Your task to perform on an android device: View the shopping cart on target. Add "razer blade" to the cart on target, then select checkout. Image 0: 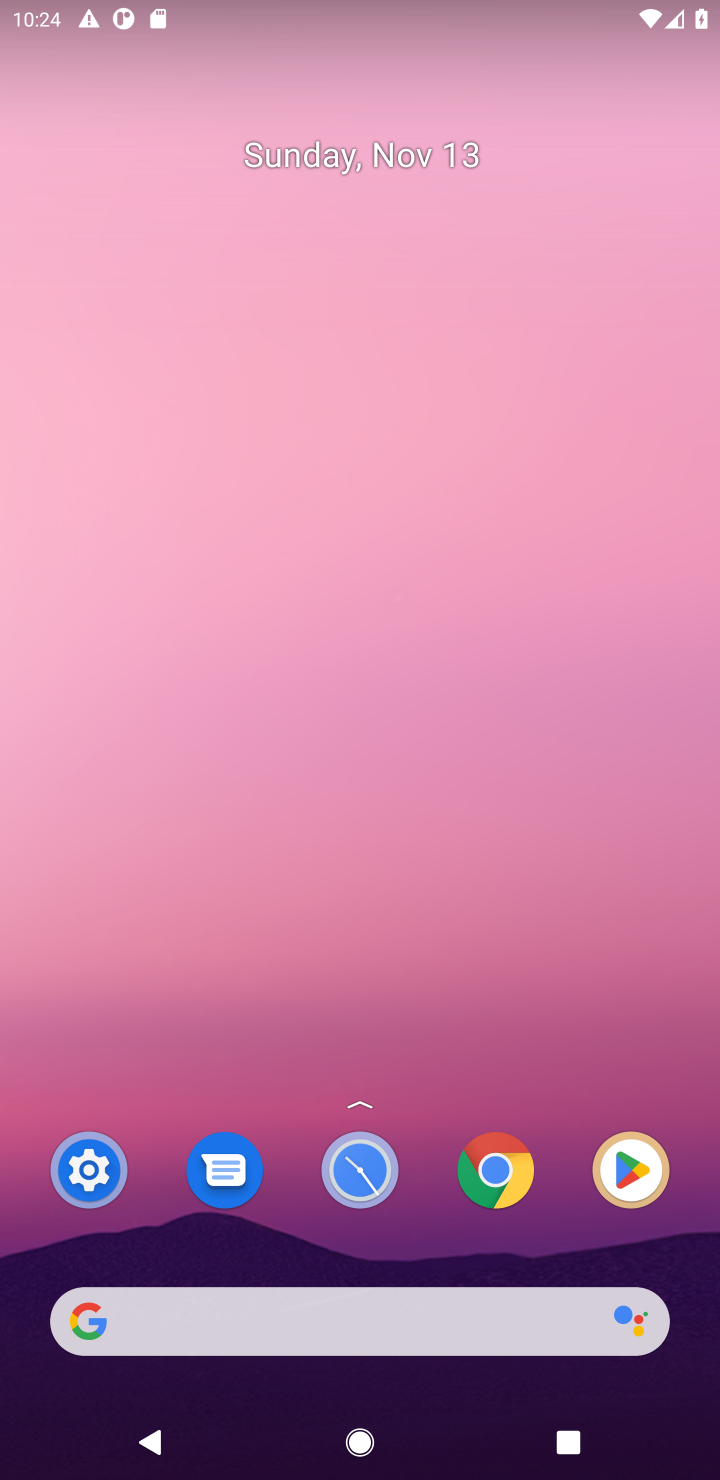
Step 0: click (410, 1336)
Your task to perform on an android device: View the shopping cart on target. Add "razer blade" to the cart on target, then select checkout. Image 1: 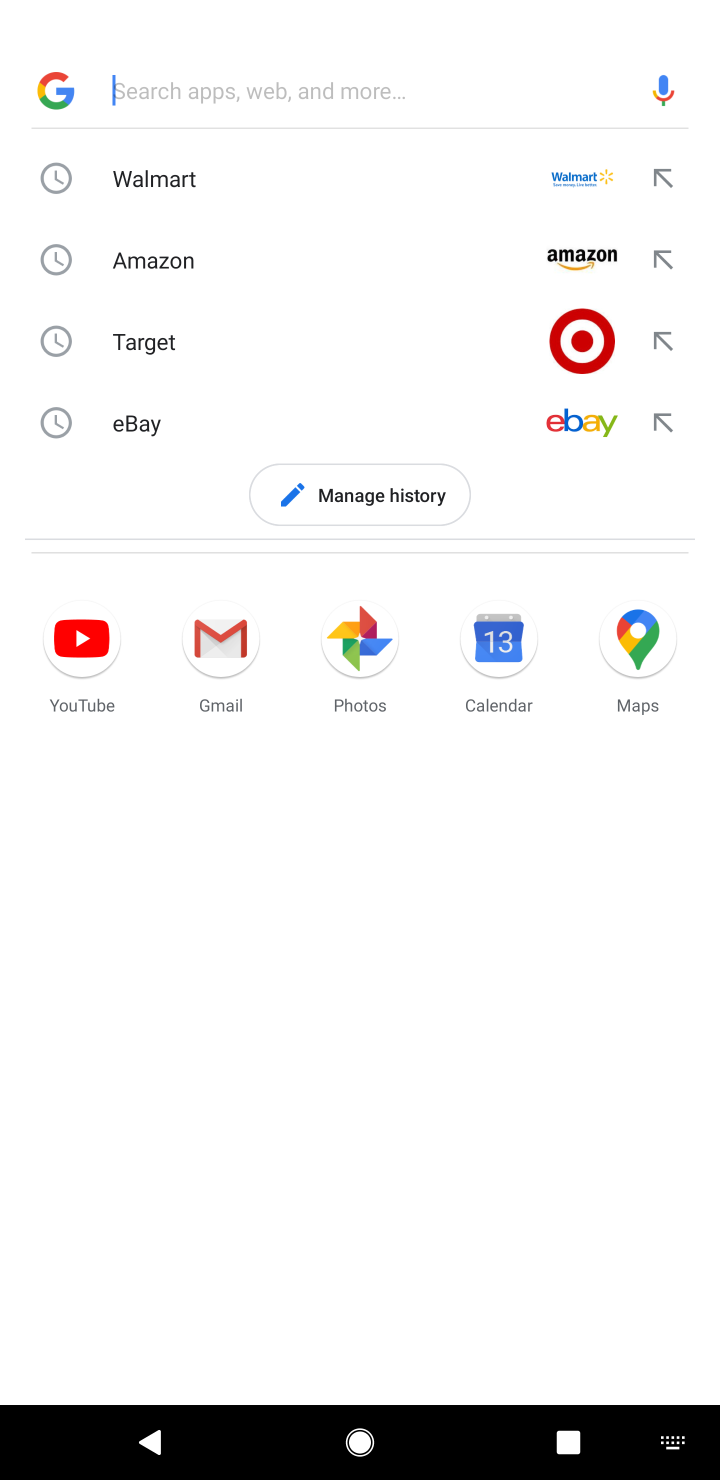
Step 1: click (283, 340)
Your task to perform on an android device: View the shopping cart on target. Add "razer blade" to the cart on target, then select checkout. Image 2: 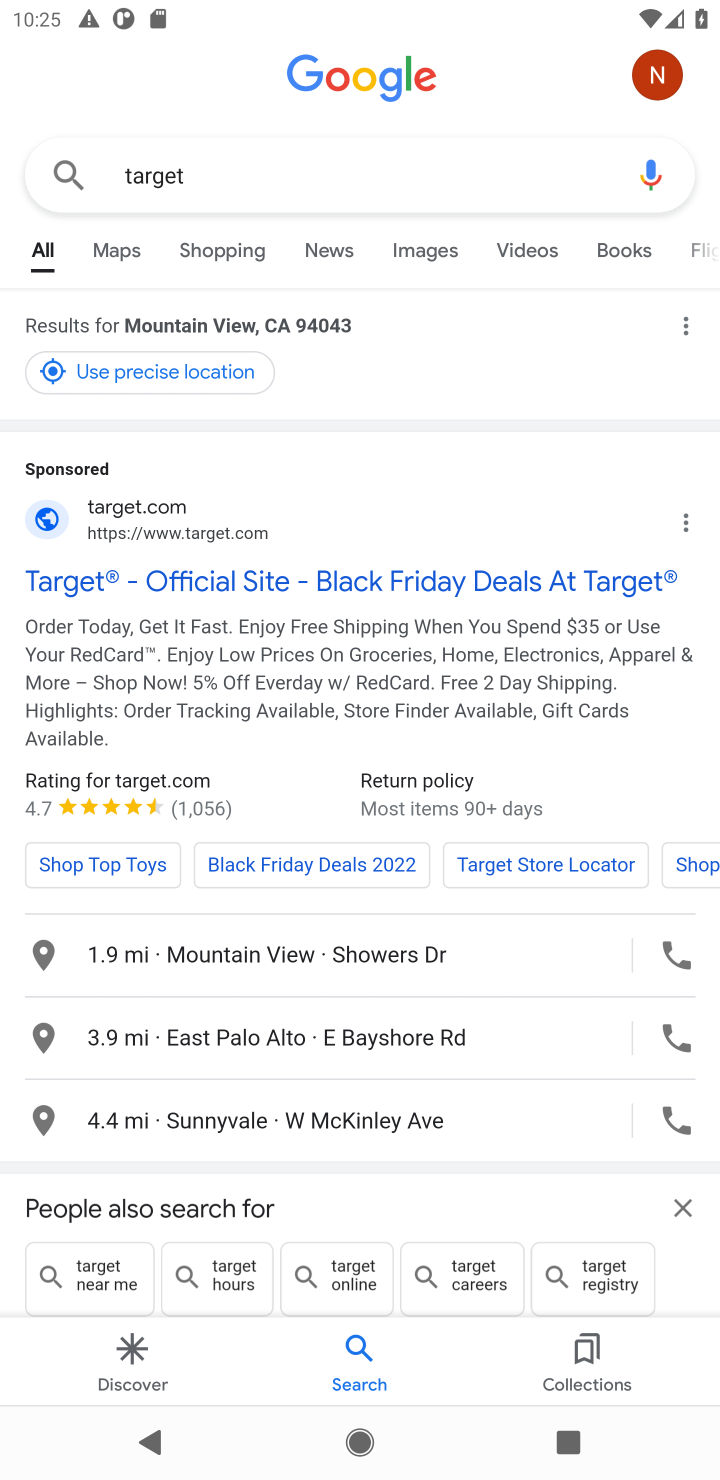
Step 2: click (275, 573)
Your task to perform on an android device: View the shopping cart on target. Add "razer blade" to the cart on target, then select checkout. Image 3: 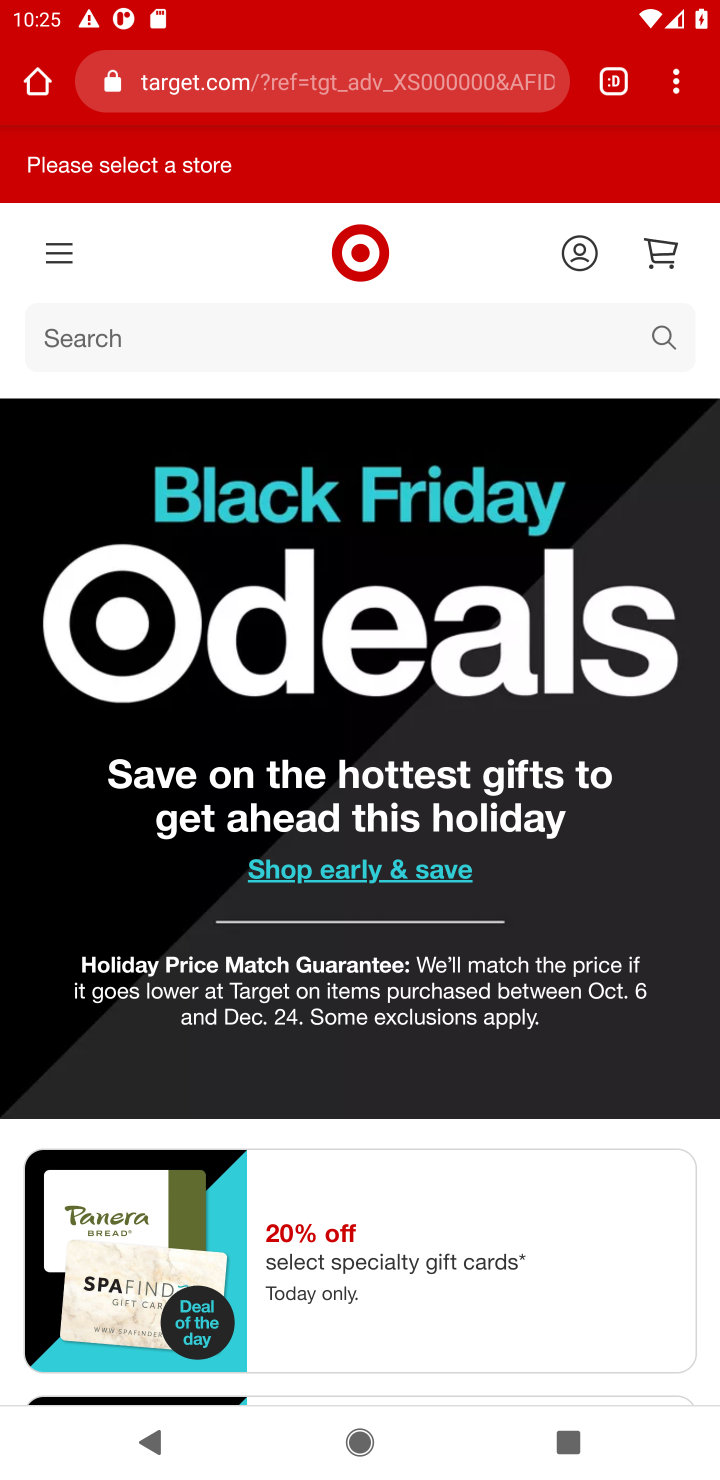
Step 3: task complete